Your task to perform on an android device: Open calendar and show me the fourth week of next month Image 0: 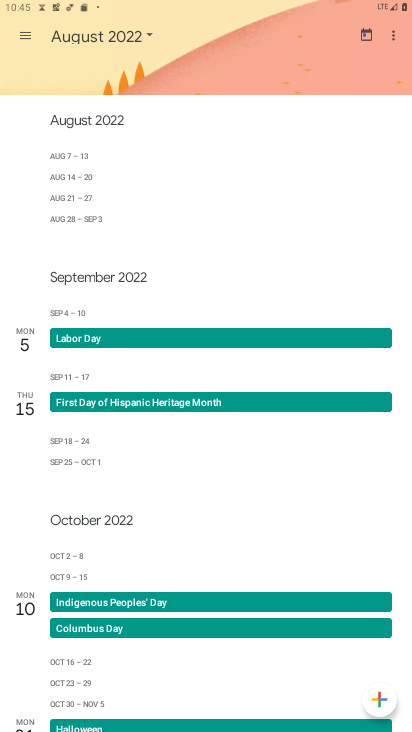
Step 0: drag from (244, 536) to (300, 335)
Your task to perform on an android device: Open calendar and show me the fourth week of next month Image 1: 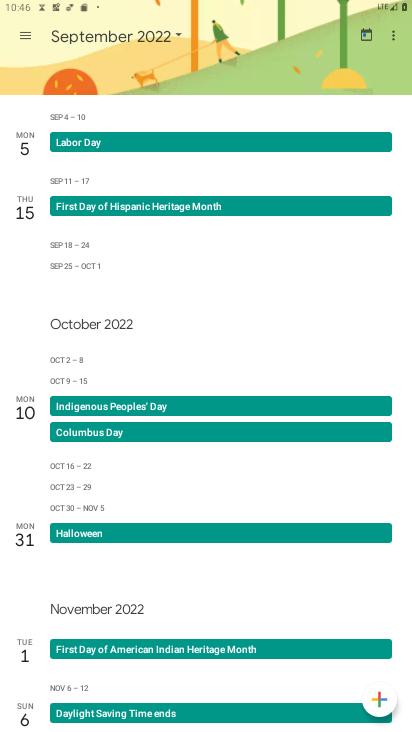
Step 1: click (364, 34)
Your task to perform on an android device: Open calendar and show me the fourth week of next month Image 2: 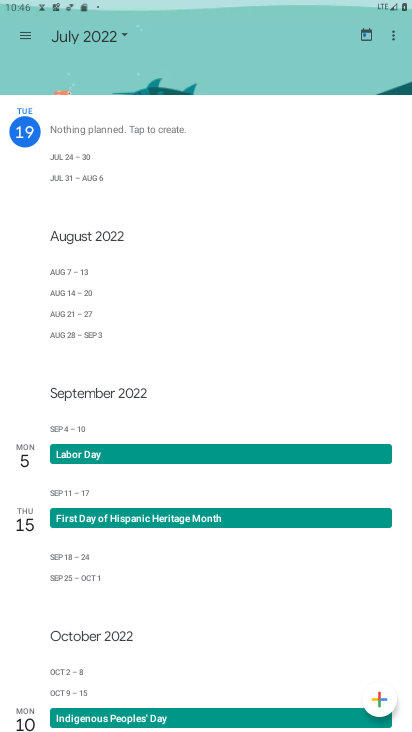
Step 2: click (94, 46)
Your task to perform on an android device: Open calendar and show me the fourth week of next month Image 3: 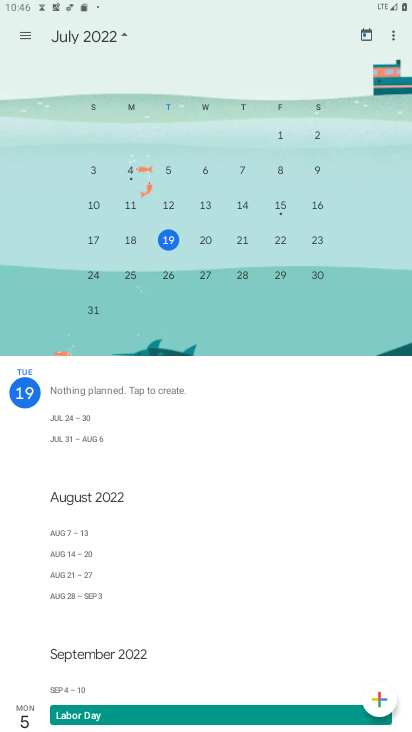
Step 3: drag from (312, 242) to (26, 286)
Your task to perform on an android device: Open calendar and show me the fourth week of next month Image 4: 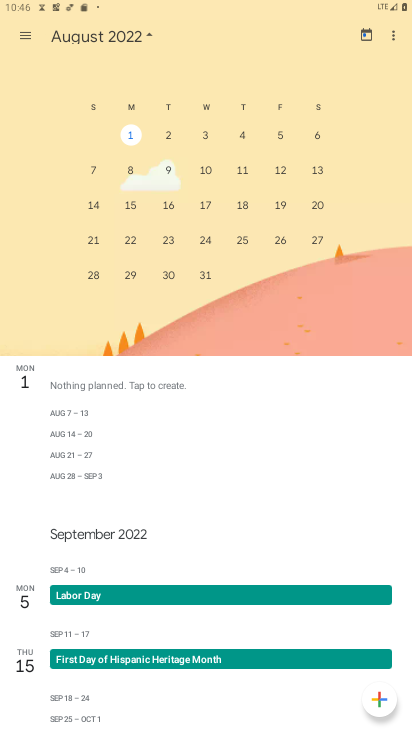
Step 4: click (279, 244)
Your task to perform on an android device: Open calendar and show me the fourth week of next month Image 5: 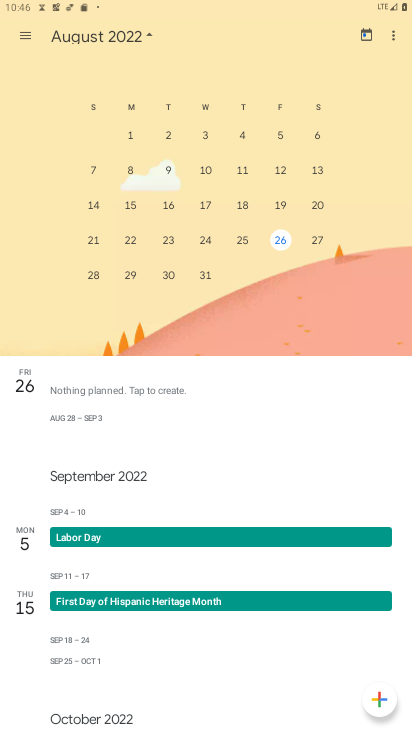
Step 5: task complete